Your task to perform on an android device: Search for "beats solo 3" on bestbuy.com, select the first entry, add it to the cart, then select checkout. Image 0: 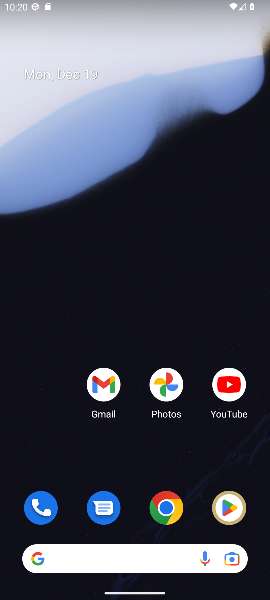
Step 0: click (169, 492)
Your task to perform on an android device: Search for "beats solo 3" on bestbuy.com, select the first entry, add it to the cart, then select checkout. Image 1: 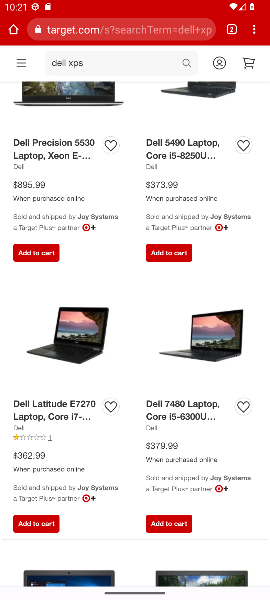
Step 1: click (234, 29)
Your task to perform on an android device: Search for "beats solo 3" on bestbuy.com, select the first entry, add it to the cart, then select checkout. Image 2: 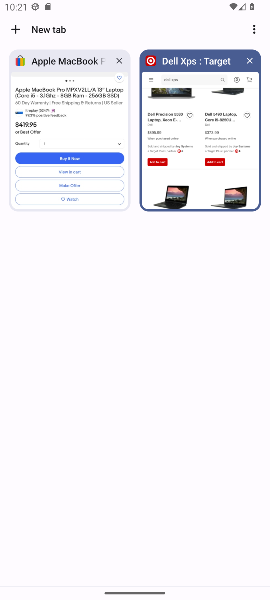
Step 2: click (16, 29)
Your task to perform on an android device: Search for "beats solo 3" on bestbuy.com, select the first entry, add it to the cart, then select checkout. Image 3: 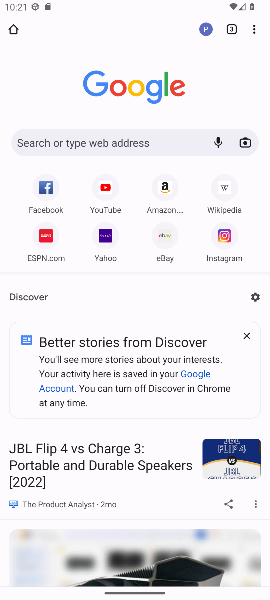
Step 3: click (142, 139)
Your task to perform on an android device: Search for "beats solo 3" on bestbuy.com, select the first entry, add it to the cart, then select checkout. Image 4: 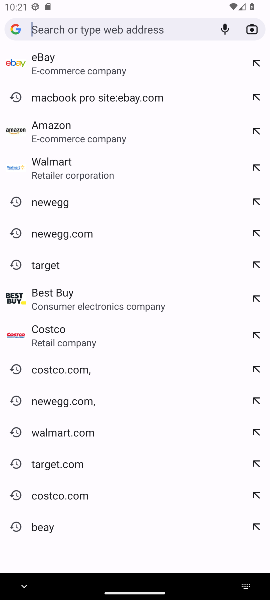
Step 4: click (52, 296)
Your task to perform on an android device: Search for "beats solo 3" on bestbuy.com, select the first entry, add it to the cart, then select checkout. Image 5: 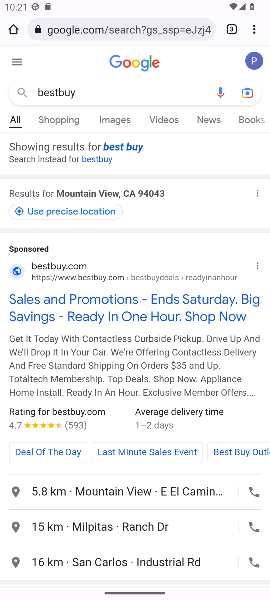
Step 5: drag from (121, 487) to (106, 268)
Your task to perform on an android device: Search for "beats solo 3" on bestbuy.com, select the first entry, add it to the cart, then select checkout. Image 6: 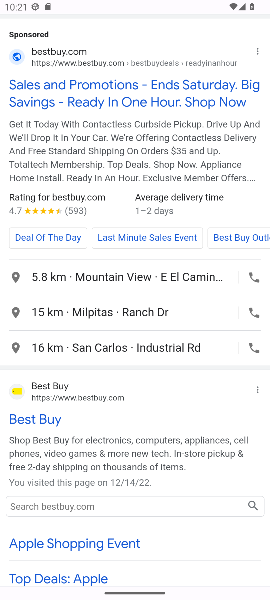
Step 6: click (35, 507)
Your task to perform on an android device: Search for "beats solo 3" on bestbuy.com, select the first entry, add it to the cart, then select checkout. Image 7: 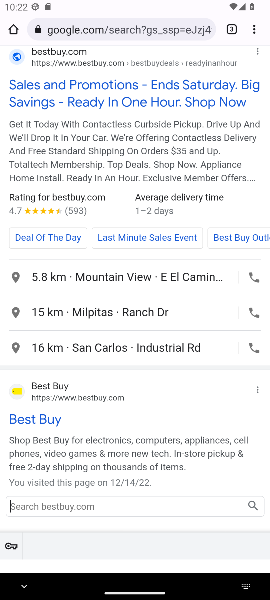
Step 7: type "beats solo 3"
Your task to perform on an android device: Search for "beats solo 3" on bestbuy.com, select the first entry, add it to the cart, then select checkout. Image 8: 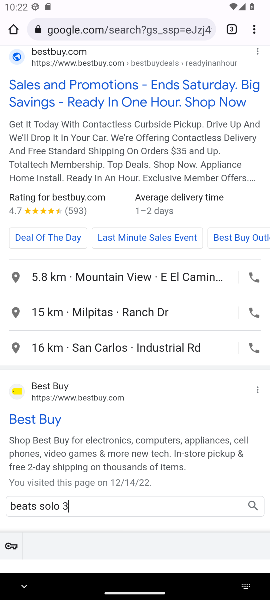
Step 8: click (254, 505)
Your task to perform on an android device: Search for "beats solo 3" on bestbuy.com, select the first entry, add it to the cart, then select checkout. Image 9: 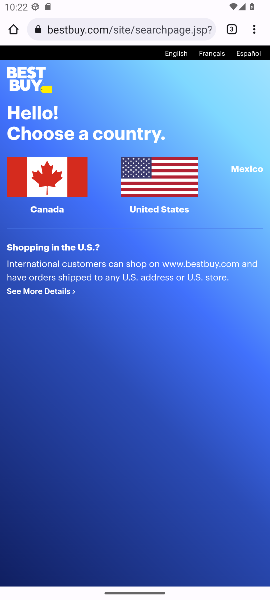
Step 9: click (130, 193)
Your task to perform on an android device: Search for "beats solo 3" on bestbuy.com, select the first entry, add it to the cart, then select checkout. Image 10: 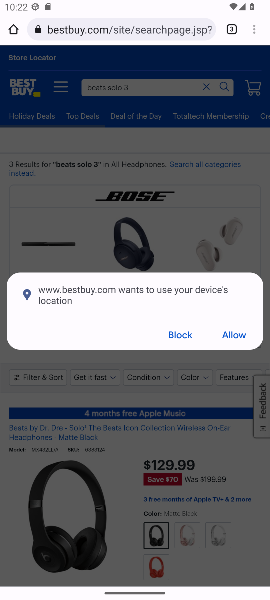
Step 10: click (174, 330)
Your task to perform on an android device: Search for "beats solo 3" on bestbuy.com, select the first entry, add it to the cart, then select checkout. Image 11: 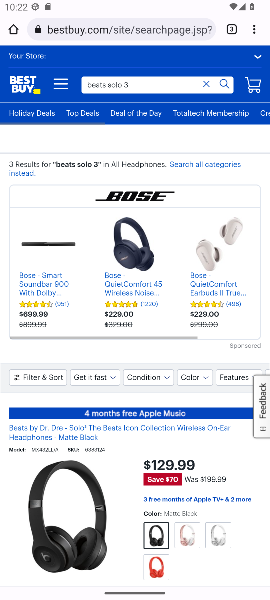
Step 11: drag from (121, 554) to (144, 365)
Your task to perform on an android device: Search for "beats solo 3" on bestbuy.com, select the first entry, add it to the cart, then select checkout. Image 12: 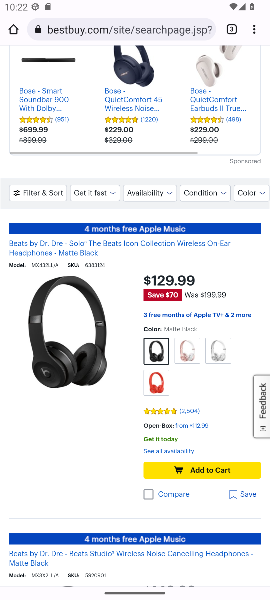
Step 12: click (192, 466)
Your task to perform on an android device: Search for "beats solo 3" on bestbuy.com, select the first entry, add it to the cart, then select checkout. Image 13: 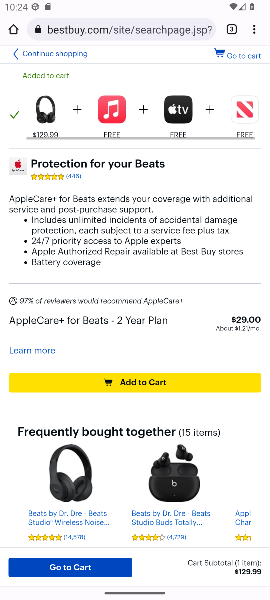
Step 13: task complete